Your task to perform on an android device: clear all cookies in the chrome app Image 0: 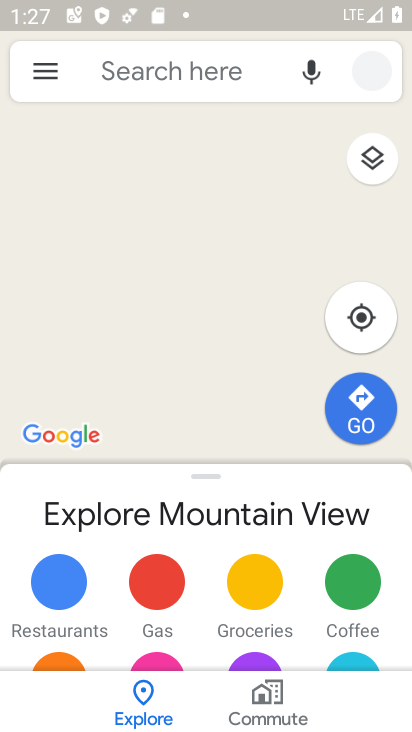
Step 0: press home button
Your task to perform on an android device: clear all cookies in the chrome app Image 1: 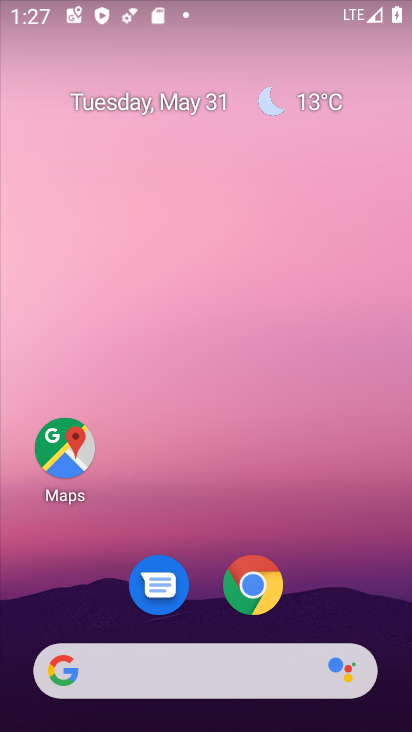
Step 1: click (257, 584)
Your task to perform on an android device: clear all cookies in the chrome app Image 2: 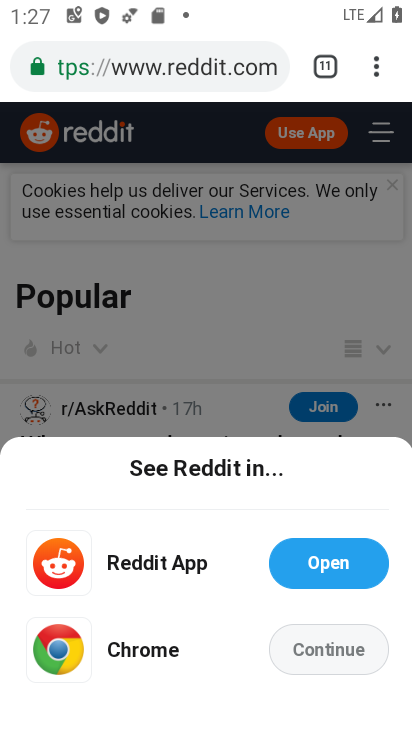
Step 2: click (377, 62)
Your task to perform on an android device: clear all cookies in the chrome app Image 3: 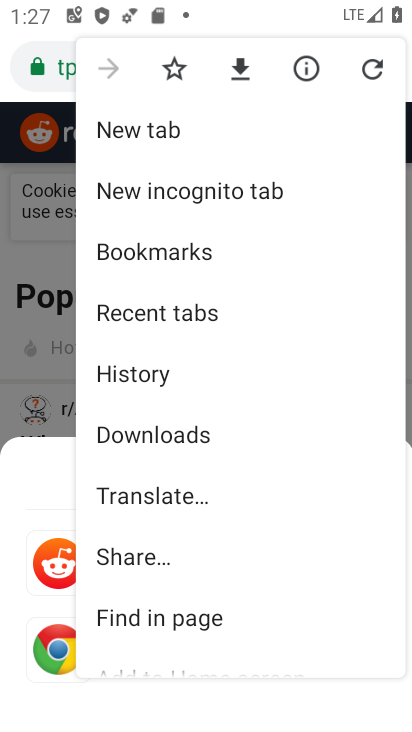
Step 3: drag from (192, 513) to (200, 157)
Your task to perform on an android device: clear all cookies in the chrome app Image 4: 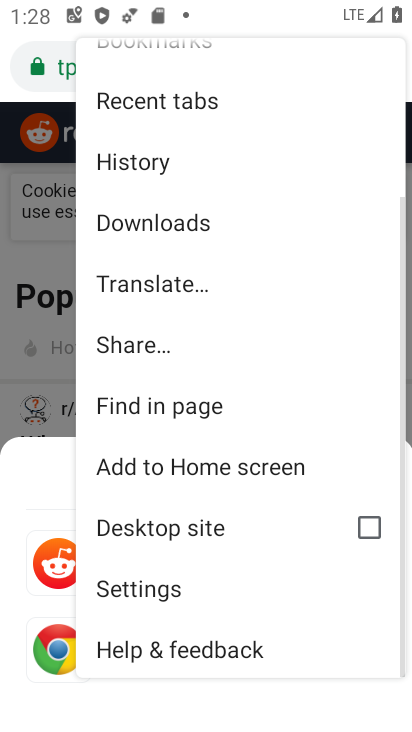
Step 4: click (177, 575)
Your task to perform on an android device: clear all cookies in the chrome app Image 5: 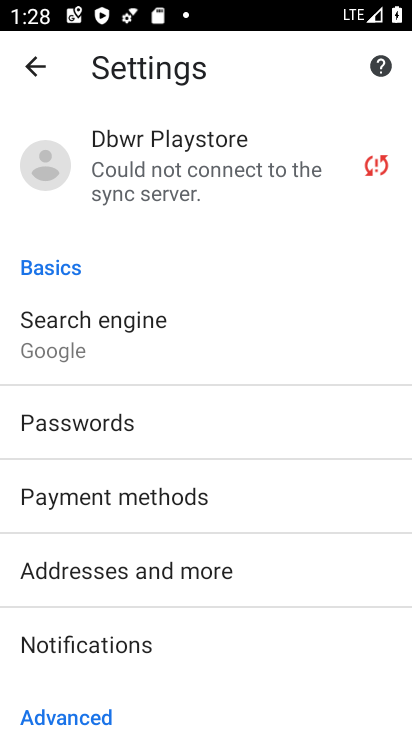
Step 5: drag from (255, 508) to (271, 96)
Your task to perform on an android device: clear all cookies in the chrome app Image 6: 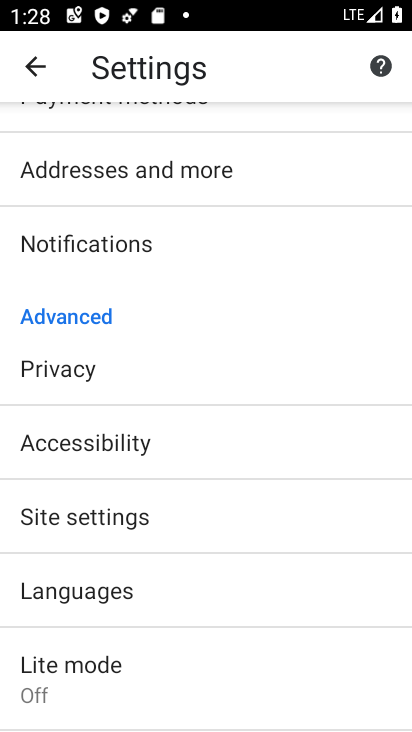
Step 6: click (250, 507)
Your task to perform on an android device: clear all cookies in the chrome app Image 7: 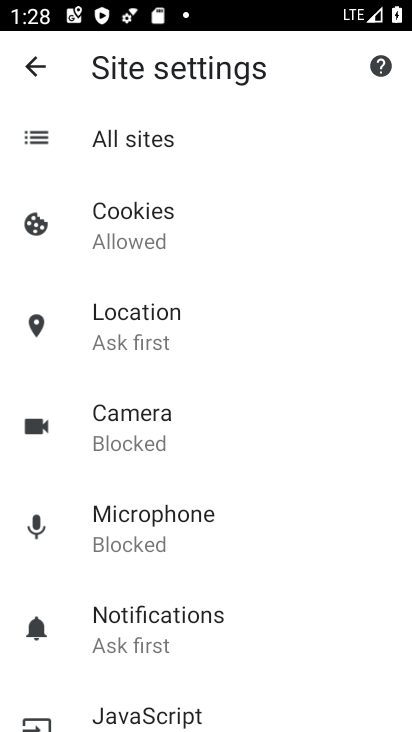
Step 7: click (40, 70)
Your task to perform on an android device: clear all cookies in the chrome app Image 8: 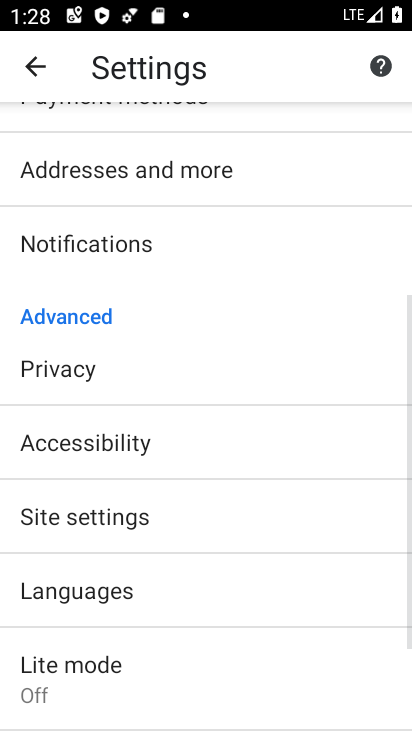
Step 8: click (224, 374)
Your task to perform on an android device: clear all cookies in the chrome app Image 9: 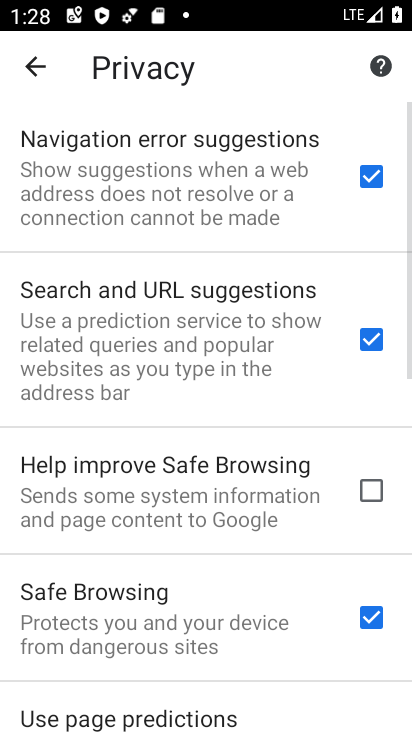
Step 9: drag from (248, 602) to (269, 45)
Your task to perform on an android device: clear all cookies in the chrome app Image 10: 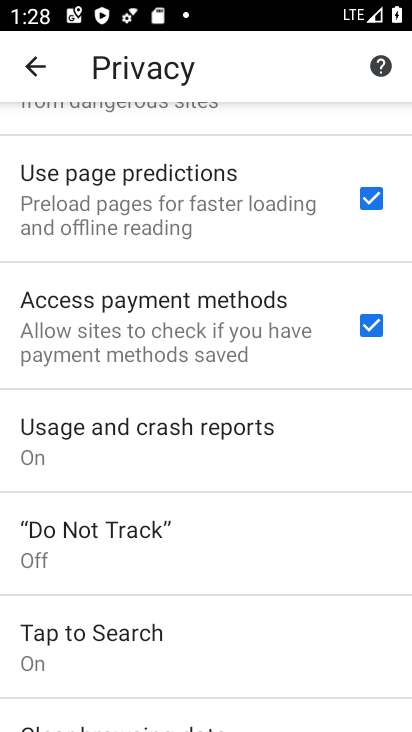
Step 10: drag from (240, 476) to (276, 123)
Your task to perform on an android device: clear all cookies in the chrome app Image 11: 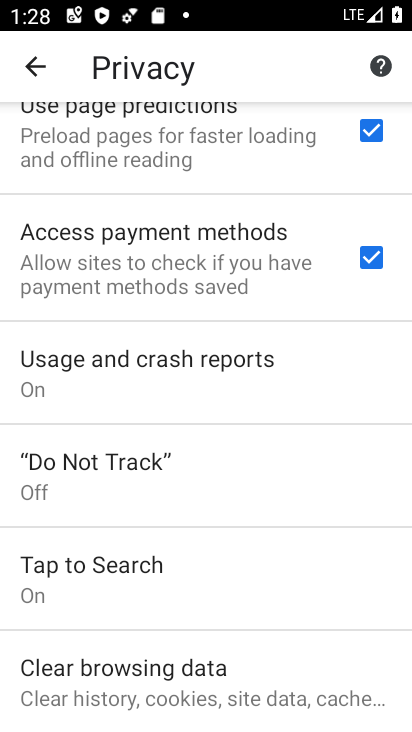
Step 11: click (249, 685)
Your task to perform on an android device: clear all cookies in the chrome app Image 12: 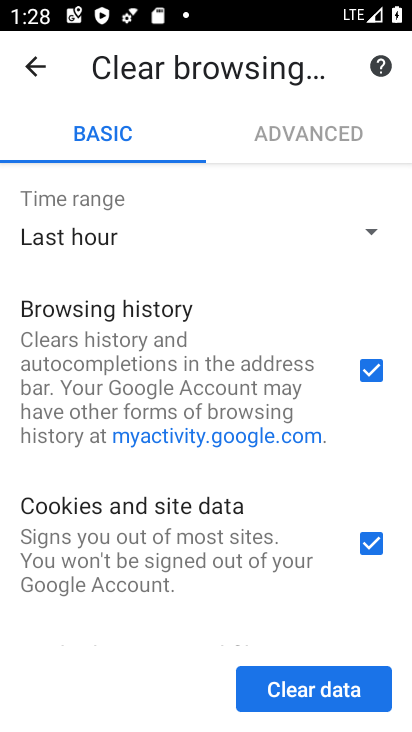
Step 12: click (377, 371)
Your task to perform on an android device: clear all cookies in the chrome app Image 13: 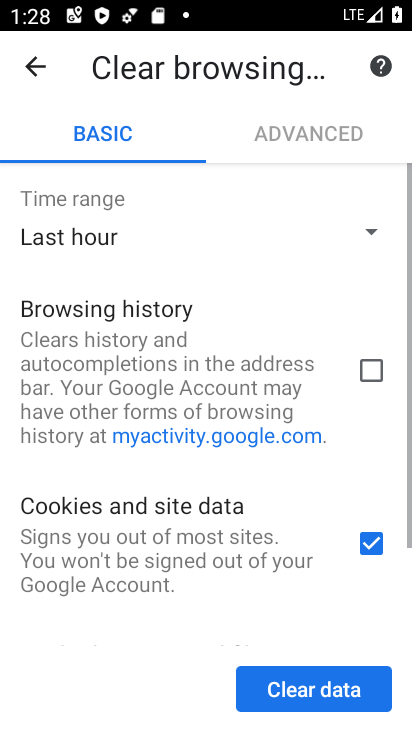
Step 13: drag from (274, 454) to (304, 208)
Your task to perform on an android device: clear all cookies in the chrome app Image 14: 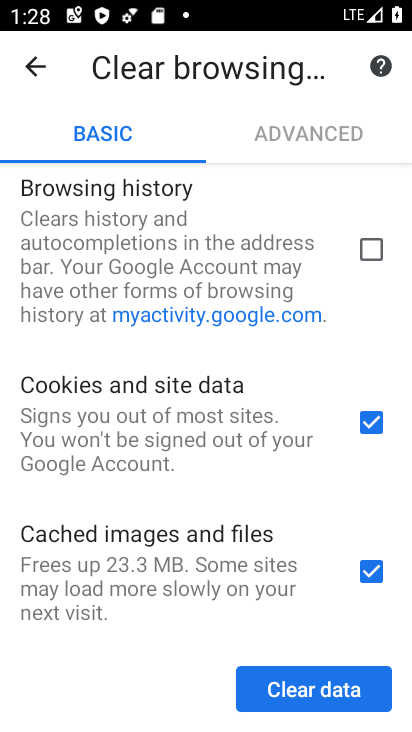
Step 14: click (368, 557)
Your task to perform on an android device: clear all cookies in the chrome app Image 15: 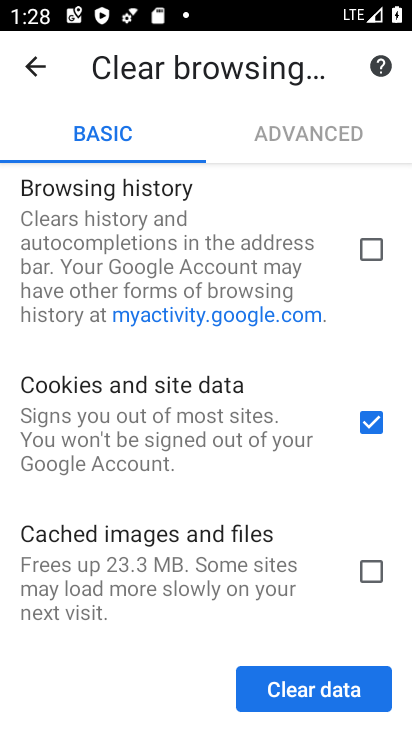
Step 15: click (347, 687)
Your task to perform on an android device: clear all cookies in the chrome app Image 16: 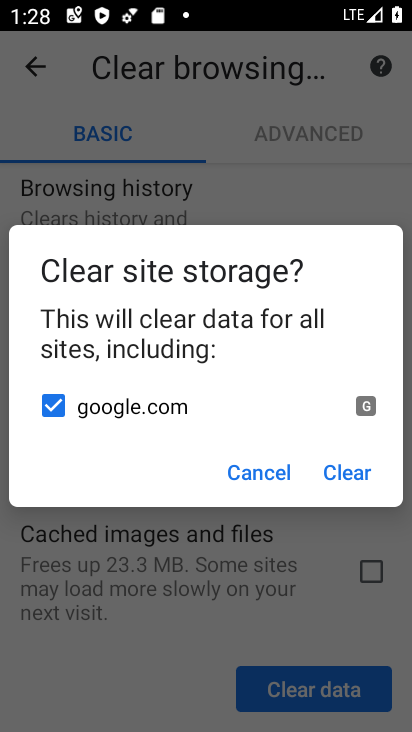
Step 16: click (364, 464)
Your task to perform on an android device: clear all cookies in the chrome app Image 17: 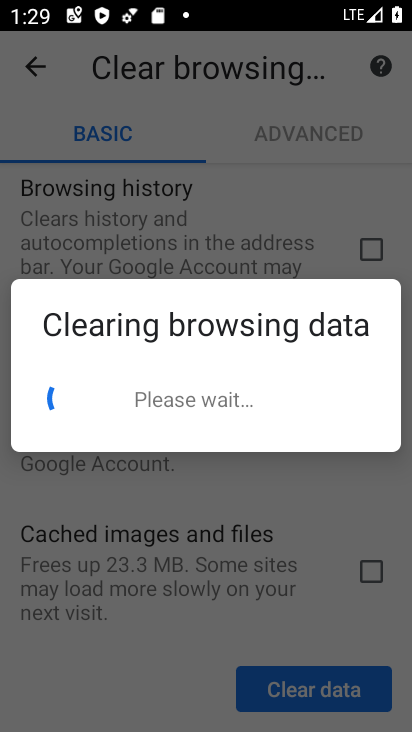
Step 17: task complete